Your task to perform on an android device: turn on data saver in the chrome app Image 0: 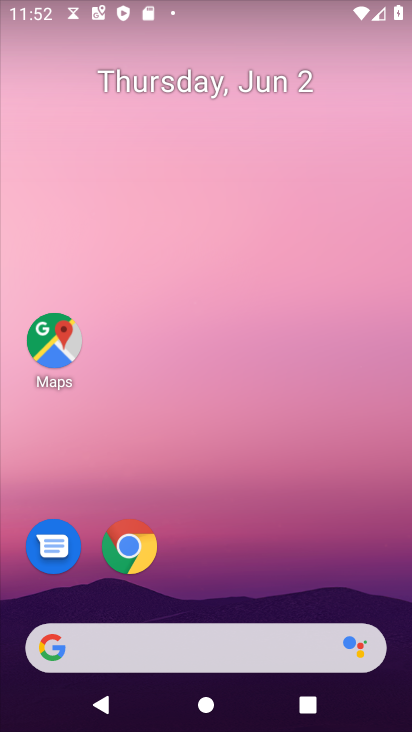
Step 0: drag from (198, 629) to (348, 89)
Your task to perform on an android device: turn on data saver in the chrome app Image 1: 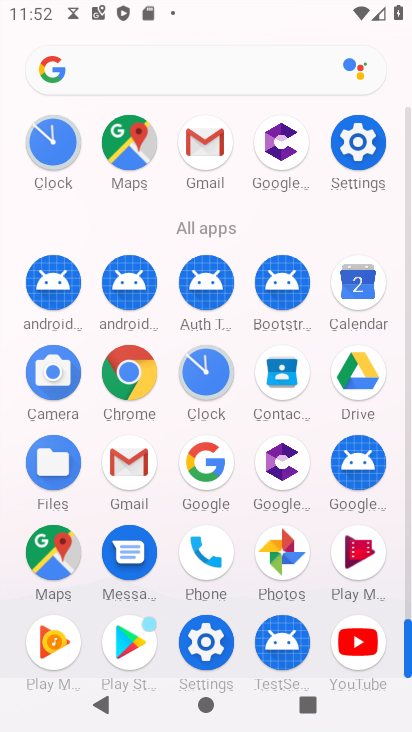
Step 1: click (135, 367)
Your task to perform on an android device: turn on data saver in the chrome app Image 2: 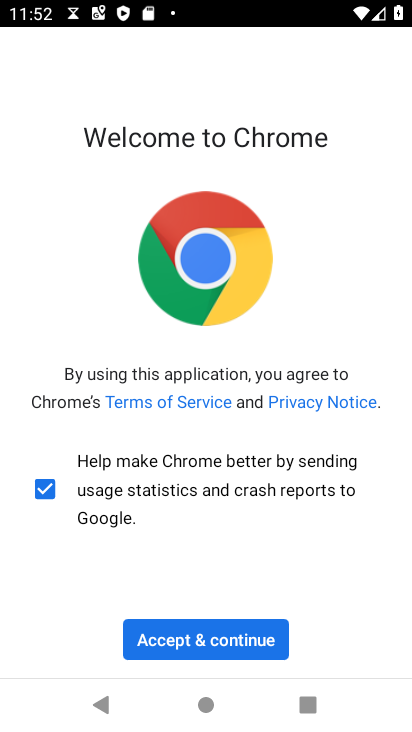
Step 2: click (232, 653)
Your task to perform on an android device: turn on data saver in the chrome app Image 3: 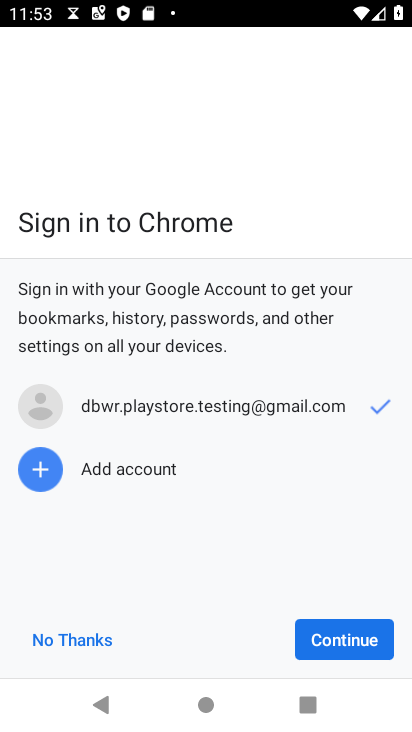
Step 3: click (344, 636)
Your task to perform on an android device: turn on data saver in the chrome app Image 4: 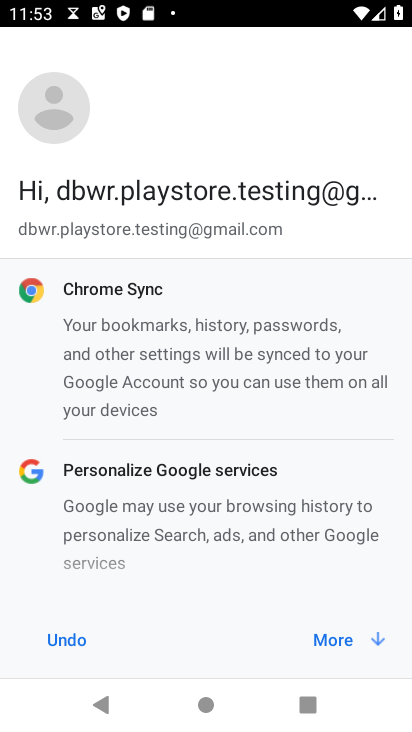
Step 4: click (345, 637)
Your task to perform on an android device: turn on data saver in the chrome app Image 5: 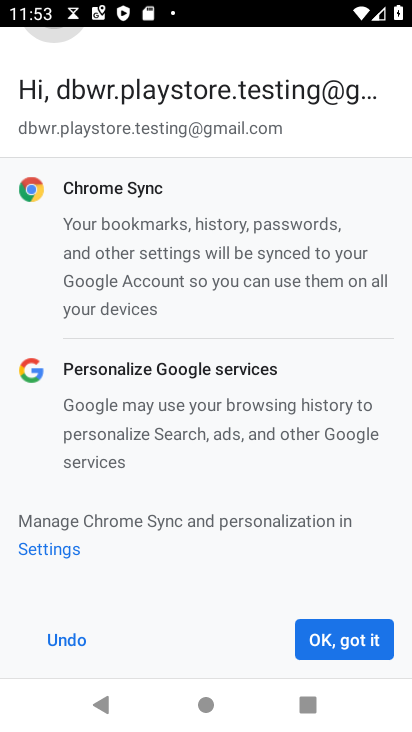
Step 5: click (347, 645)
Your task to perform on an android device: turn on data saver in the chrome app Image 6: 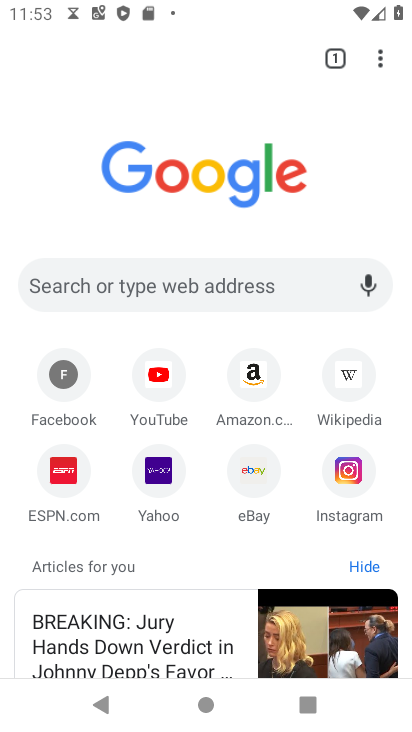
Step 6: drag from (386, 60) to (258, 481)
Your task to perform on an android device: turn on data saver in the chrome app Image 7: 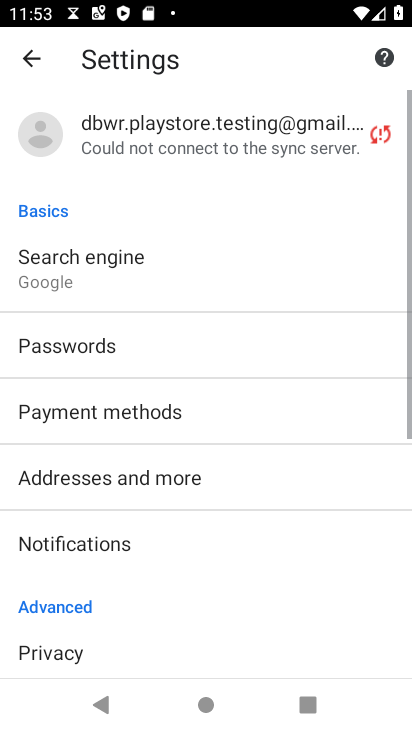
Step 7: drag from (244, 597) to (330, 237)
Your task to perform on an android device: turn on data saver in the chrome app Image 8: 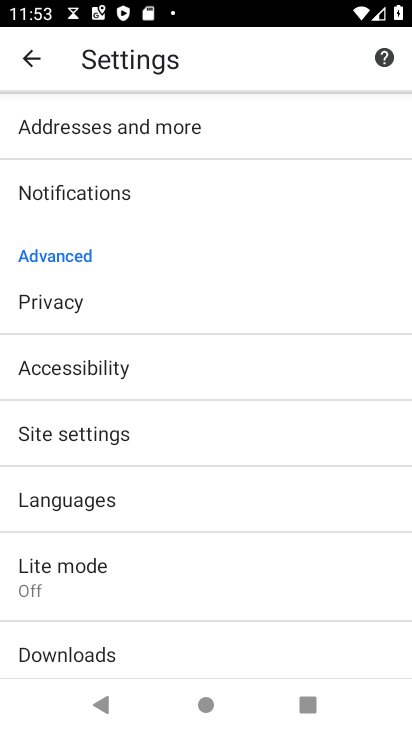
Step 8: click (183, 598)
Your task to perform on an android device: turn on data saver in the chrome app Image 9: 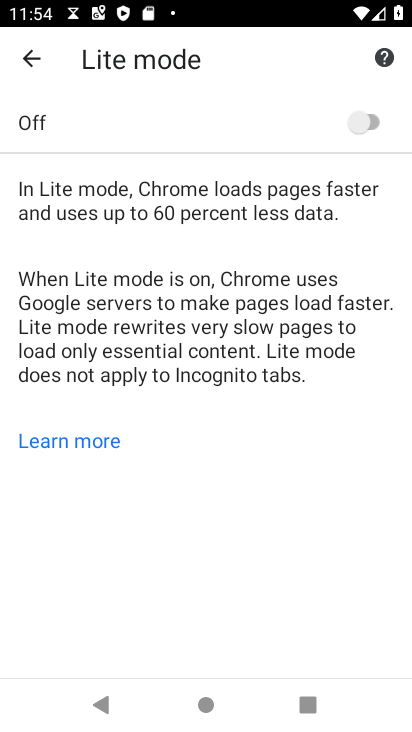
Step 9: click (371, 125)
Your task to perform on an android device: turn on data saver in the chrome app Image 10: 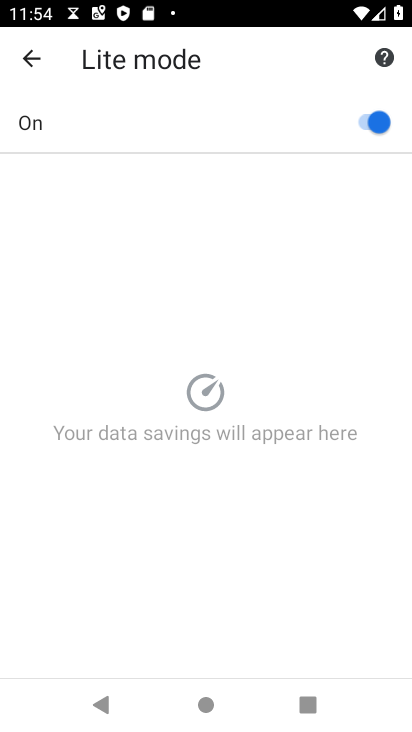
Step 10: task complete